Your task to perform on an android device: turn pop-ups on in chrome Image 0: 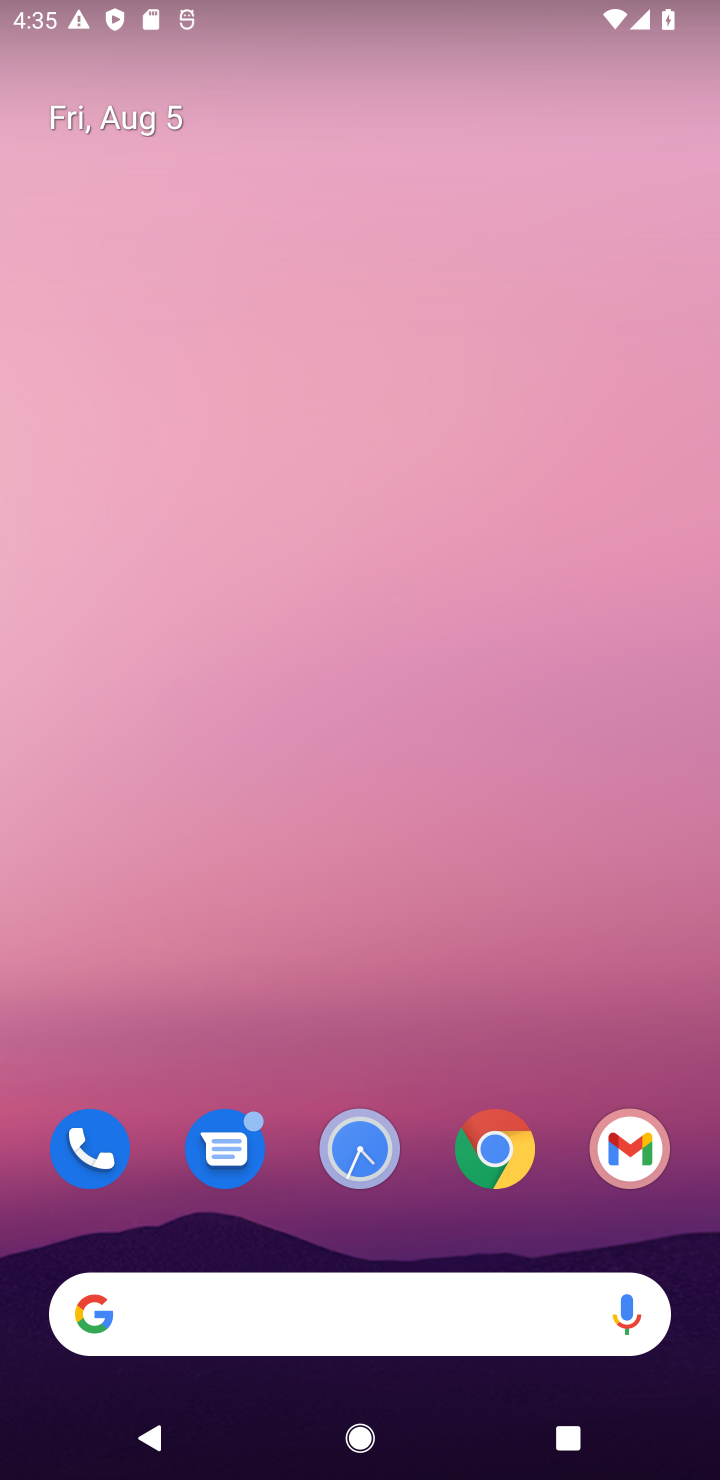
Step 0: click (504, 1127)
Your task to perform on an android device: turn pop-ups on in chrome Image 1: 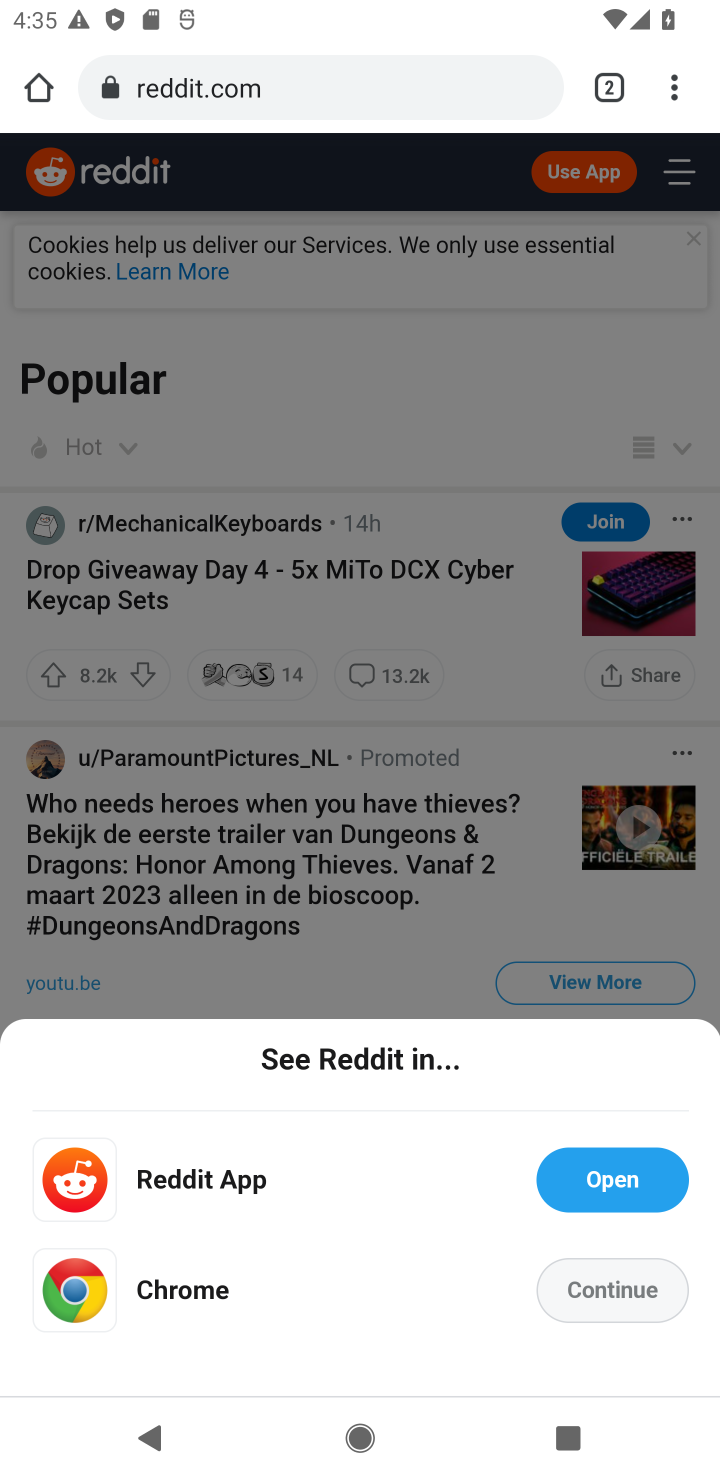
Step 1: drag from (696, 87) to (442, 1190)
Your task to perform on an android device: turn pop-ups on in chrome Image 2: 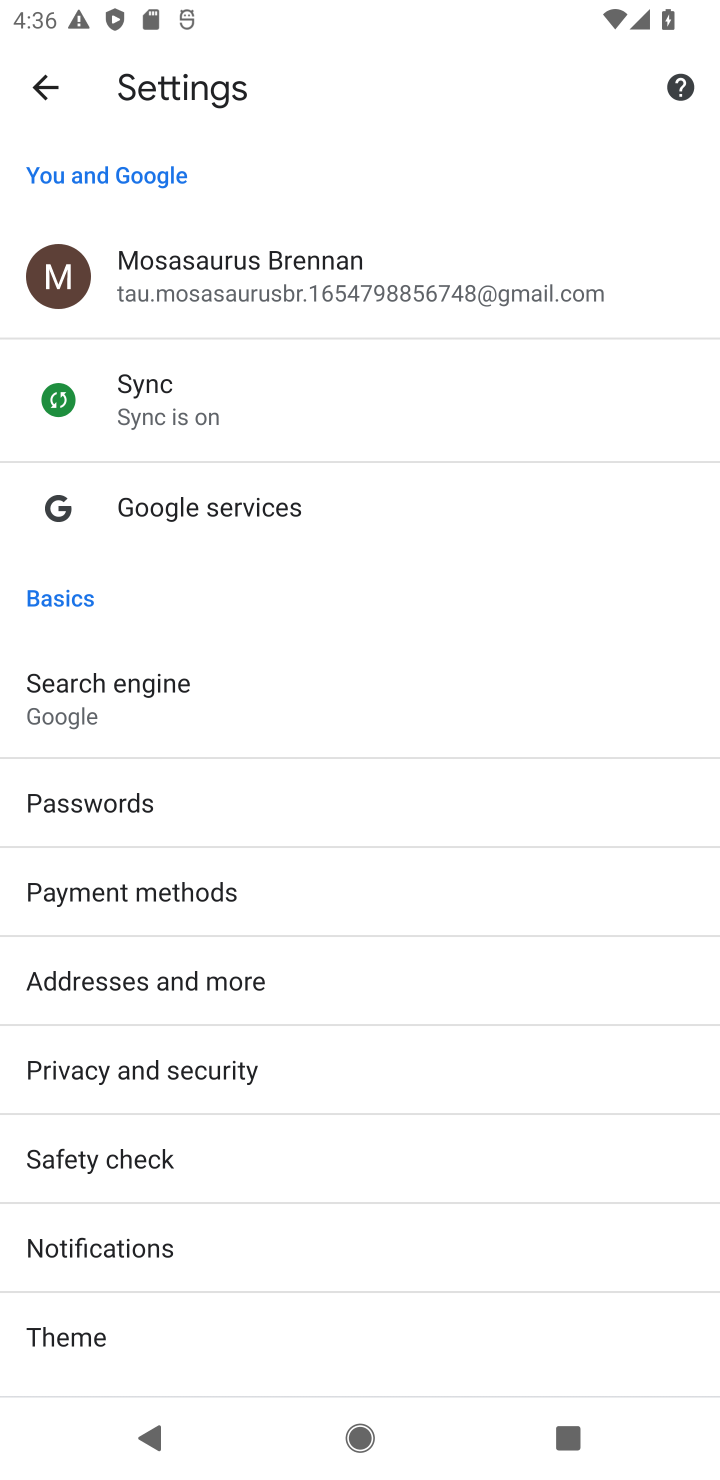
Step 2: drag from (232, 1190) to (367, 247)
Your task to perform on an android device: turn pop-ups on in chrome Image 3: 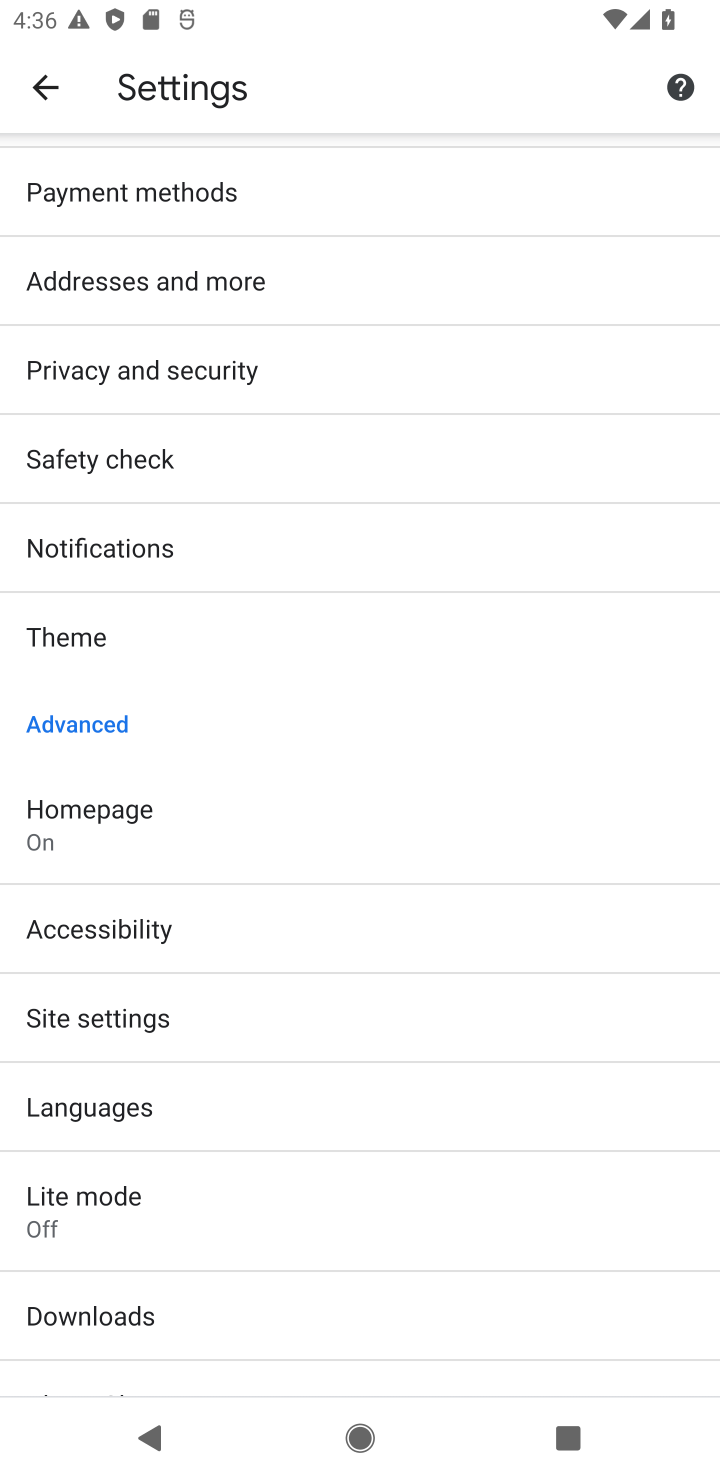
Step 3: click (76, 1027)
Your task to perform on an android device: turn pop-ups on in chrome Image 4: 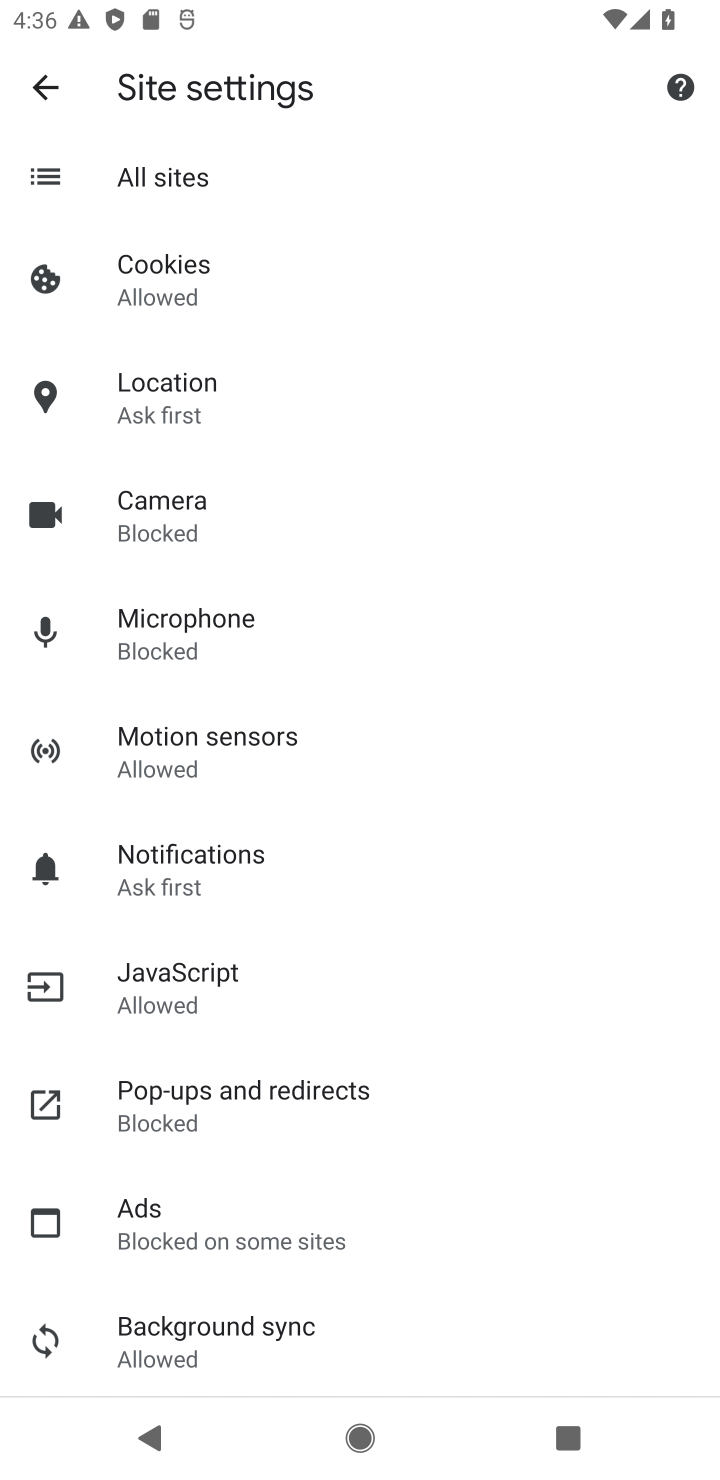
Step 4: click (272, 1095)
Your task to perform on an android device: turn pop-ups on in chrome Image 5: 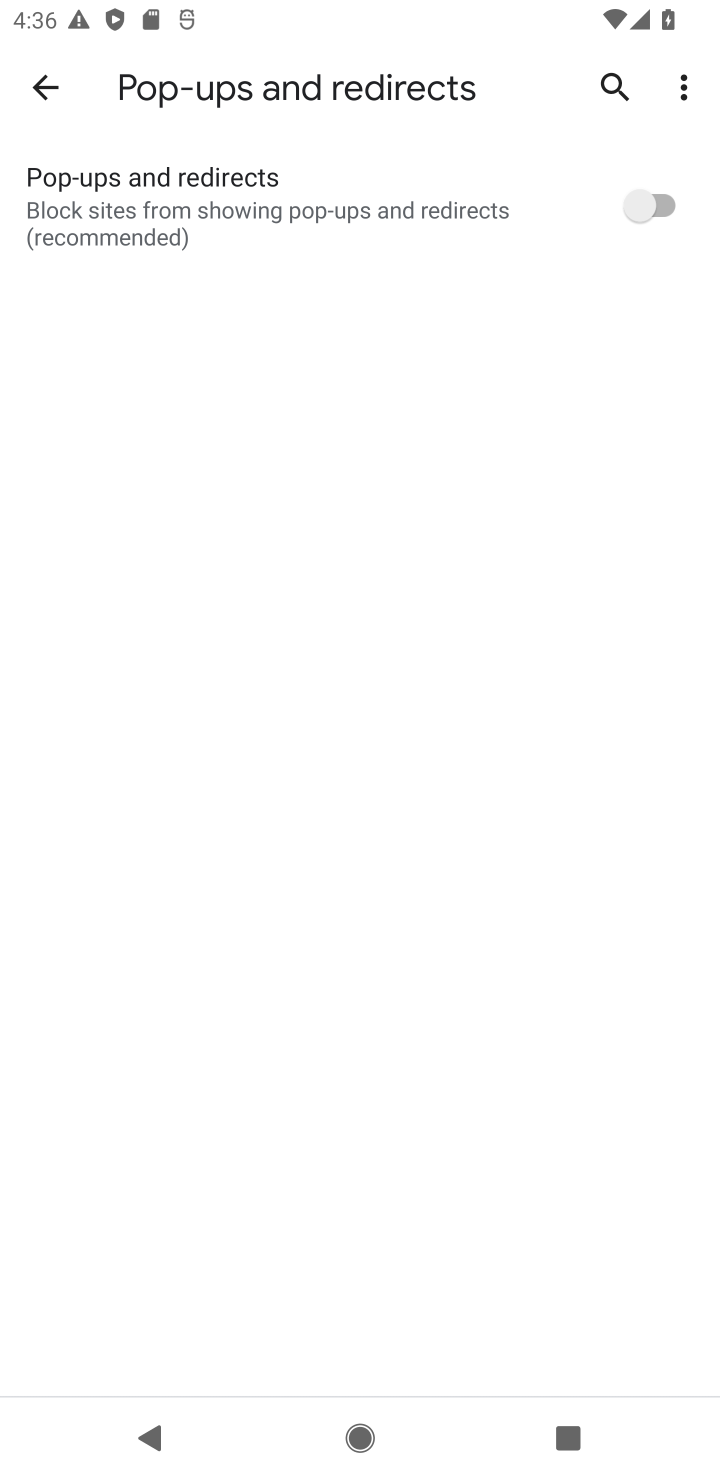
Step 5: click (650, 200)
Your task to perform on an android device: turn pop-ups on in chrome Image 6: 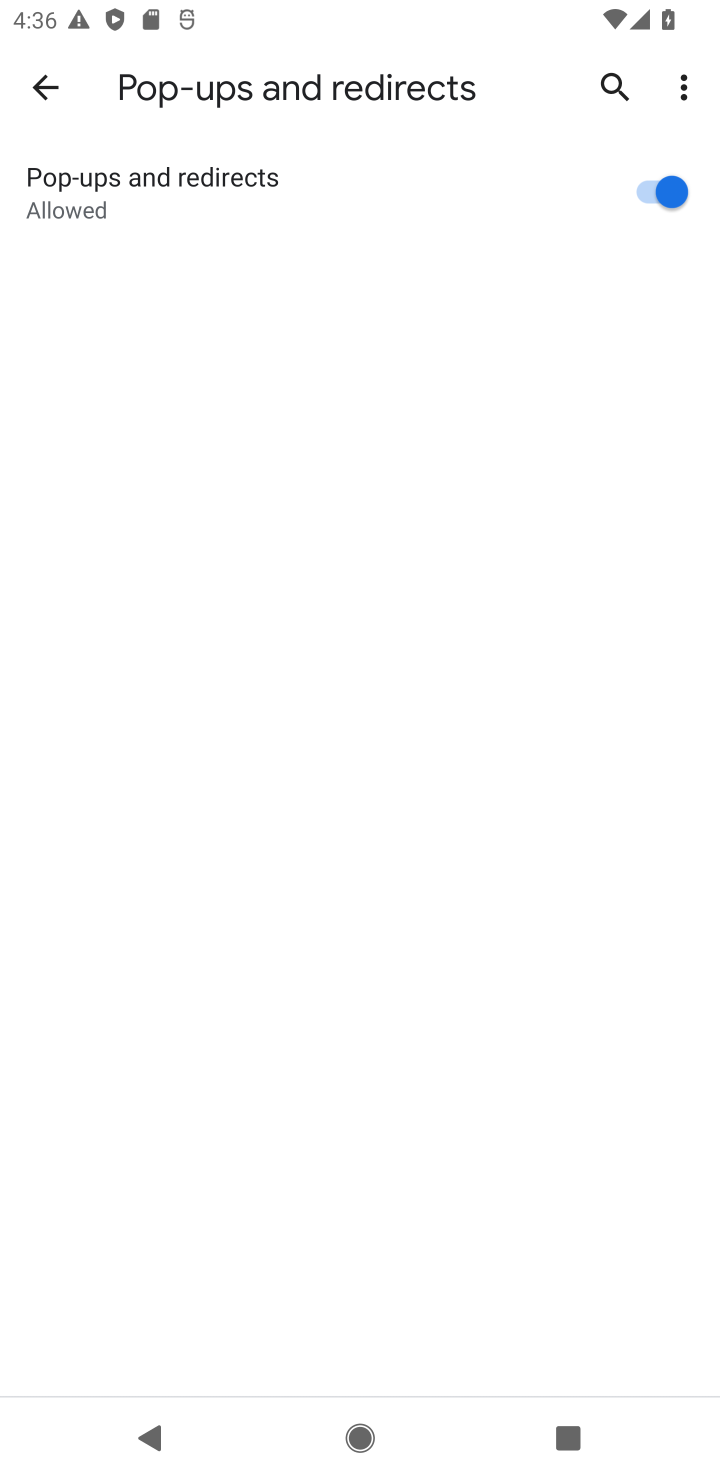
Step 6: task complete